Your task to perform on an android device: Open Amazon Image 0: 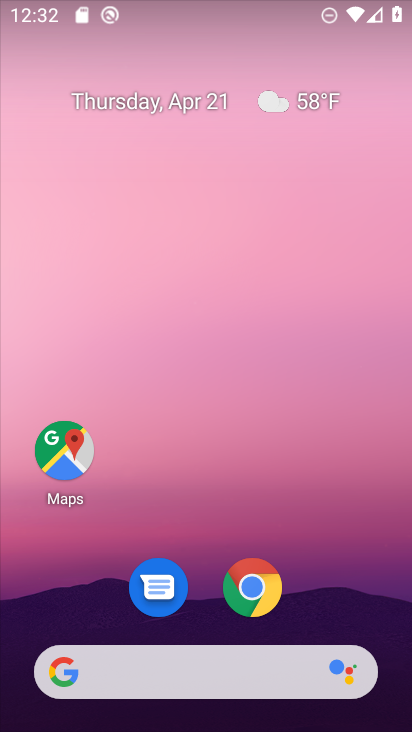
Step 0: click (299, 256)
Your task to perform on an android device: Open Amazon Image 1: 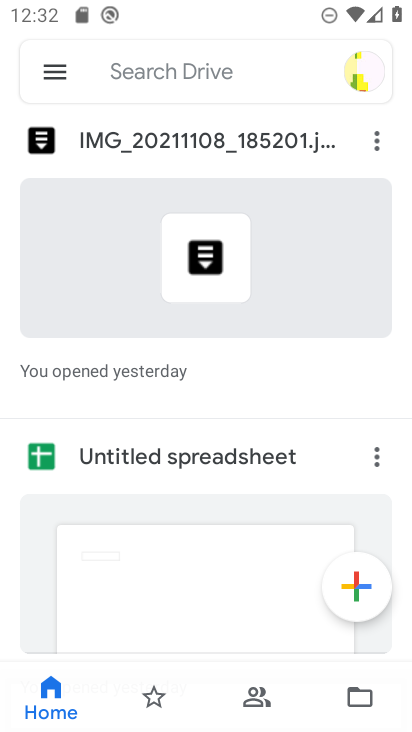
Step 1: press home button
Your task to perform on an android device: Open Amazon Image 2: 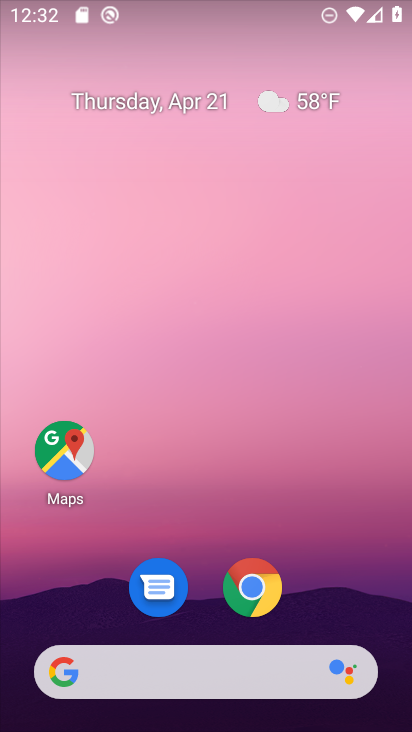
Step 2: drag from (274, 593) to (335, 55)
Your task to perform on an android device: Open Amazon Image 3: 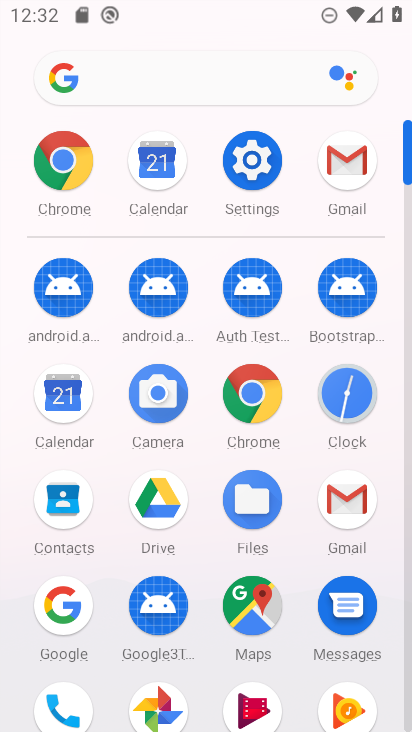
Step 3: click (243, 397)
Your task to perform on an android device: Open Amazon Image 4: 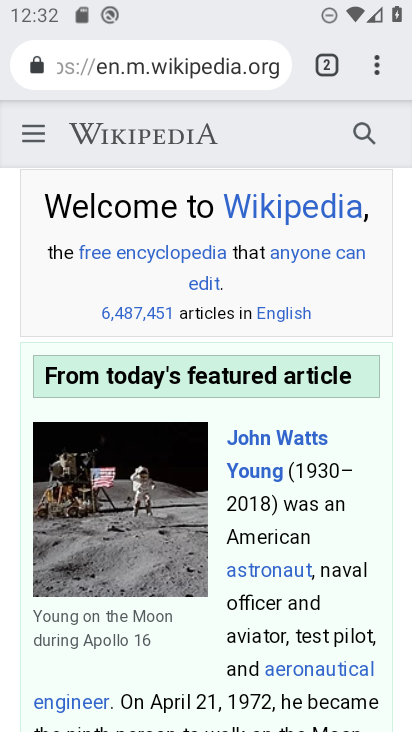
Step 4: click (217, 70)
Your task to perform on an android device: Open Amazon Image 5: 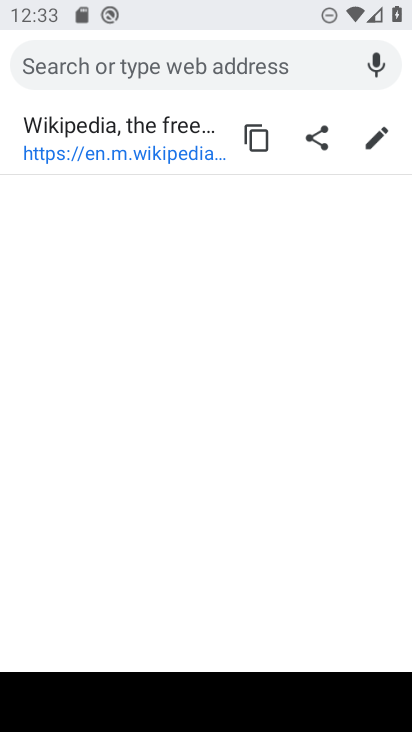
Step 5: type "amazon.com"
Your task to perform on an android device: Open Amazon Image 6: 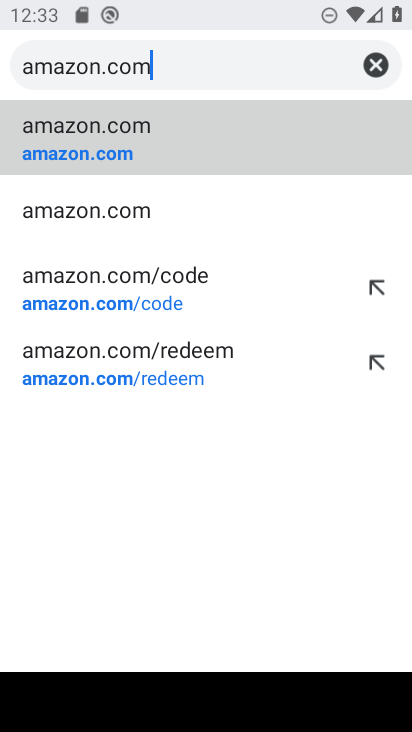
Step 6: click (137, 155)
Your task to perform on an android device: Open Amazon Image 7: 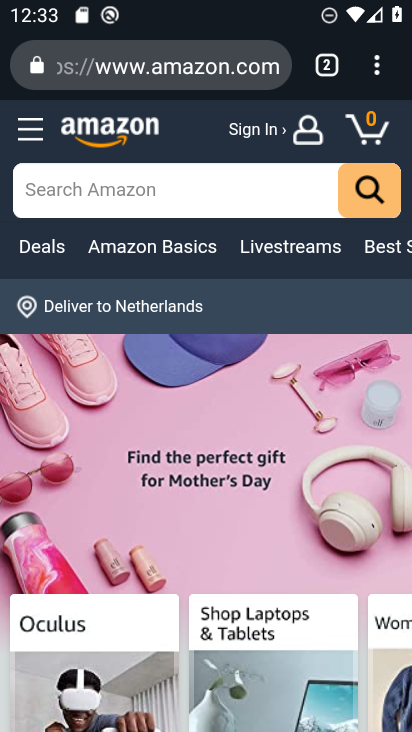
Step 7: task complete